Your task to perform on an android device: Go to CNN.com Image 0: 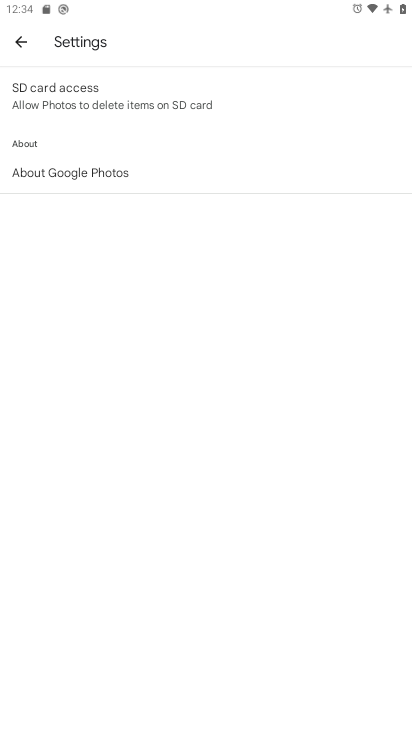
Step 0: press home button
Your task to perform on an android device: Go to CNN.com Image 1: 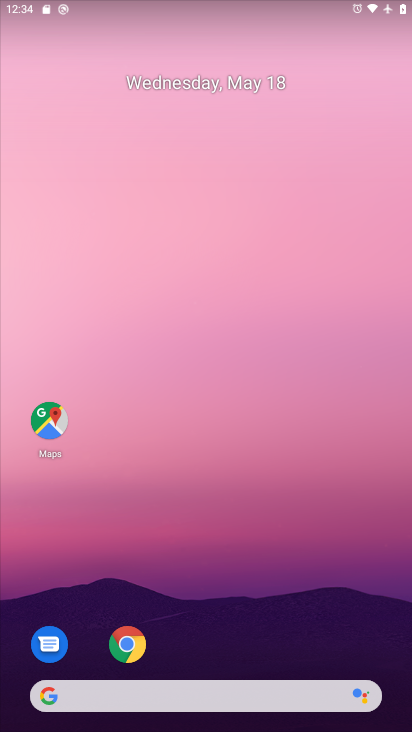
Step 1: click (128, 637)
Your task to perform on an android device: Go to CNN.com Image 2: 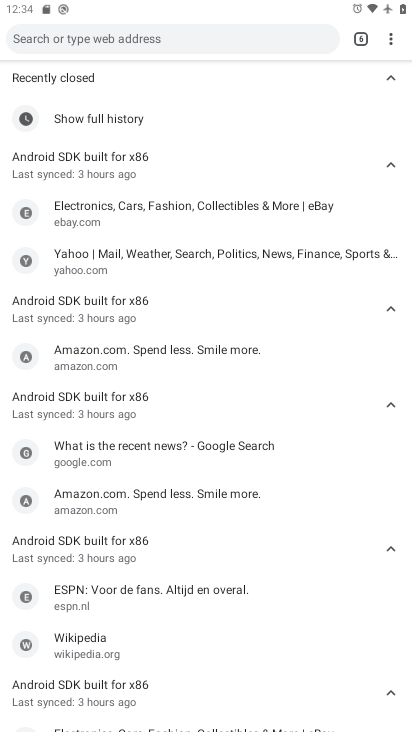
Step 2: click (369, 28)
Your task to perform on an android device: Go to CNN.com Image 3: 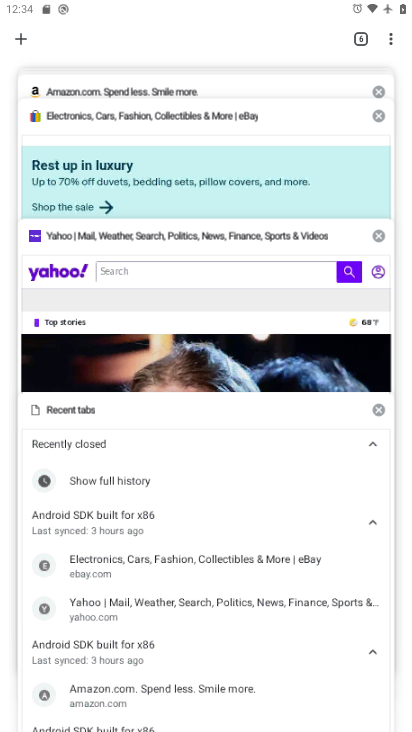
Step 3: drag from (199, 281) to (189, 539)
Your task to perform on an android device: Go to CNN.com Image 4: 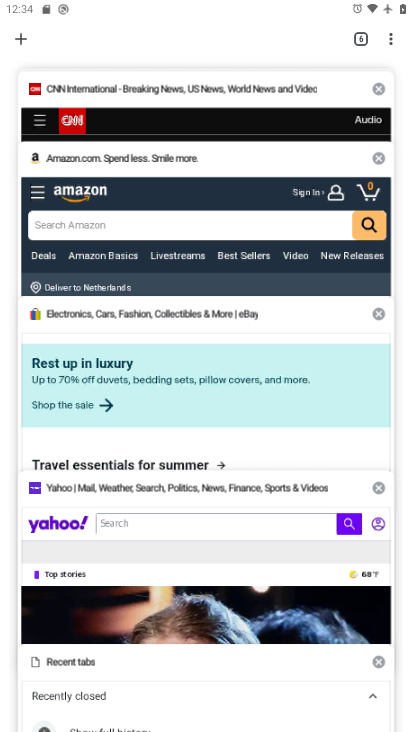
Step 4: drag from (173, 202) to (175, 479)
Your task to perform on an android device: Go to CNN.com Image 5: 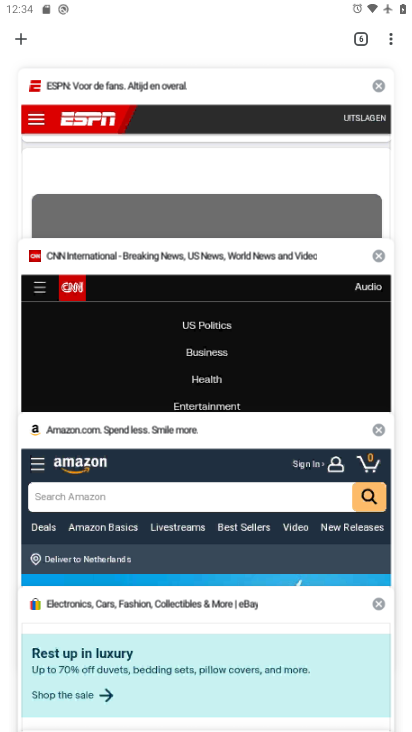
Step 5: click (130, 285)
Your task to perform on an android device: Go to CNN.com Image 6: 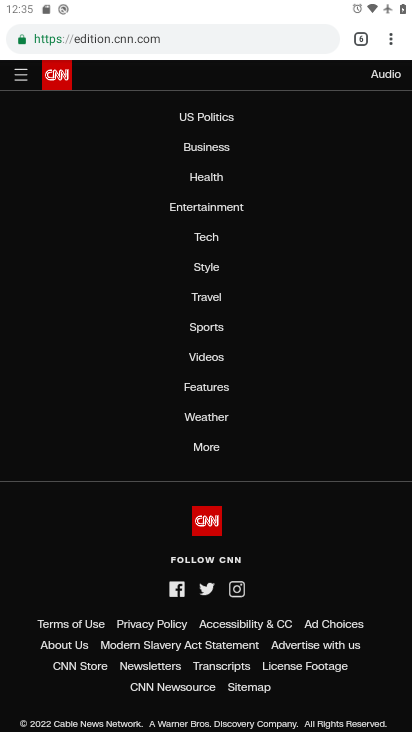
Step 6: task complete